Your task to perform on an android device: turn off translation in the chrome app Image 0: 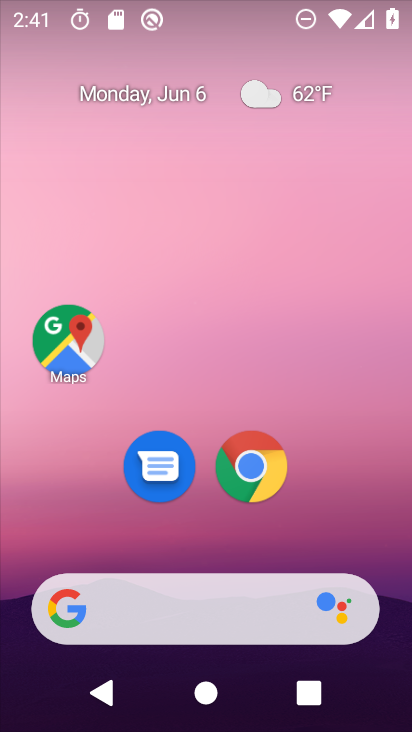
Step 0: drag from (241, 559) to (236, 3)
Your task to perform on an android device: turn off translation in the chrome app Image 1: 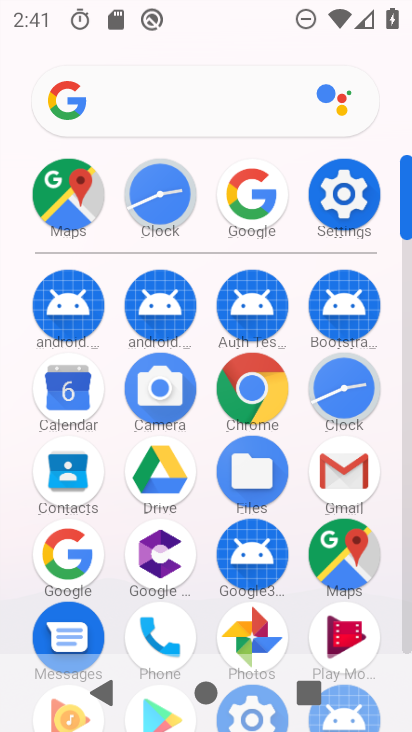
Step 1: click (247, 397)
Your task to perform on an android device: turn off translation in the chrome app Image 2: 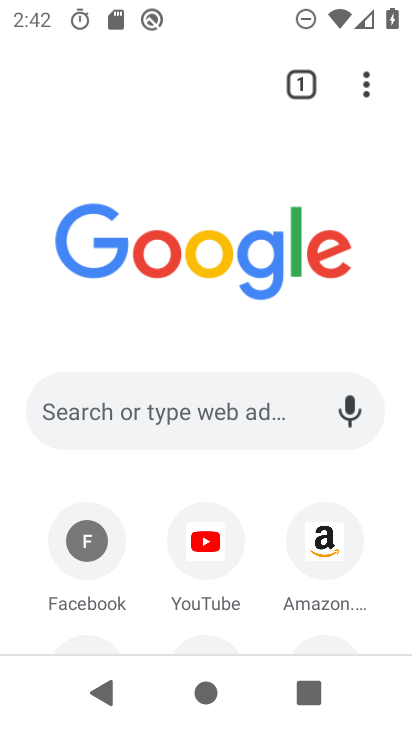
Step 2: click (368, 88)
Your task to perform on an android device: turn off translation in the chrome app Image 3: 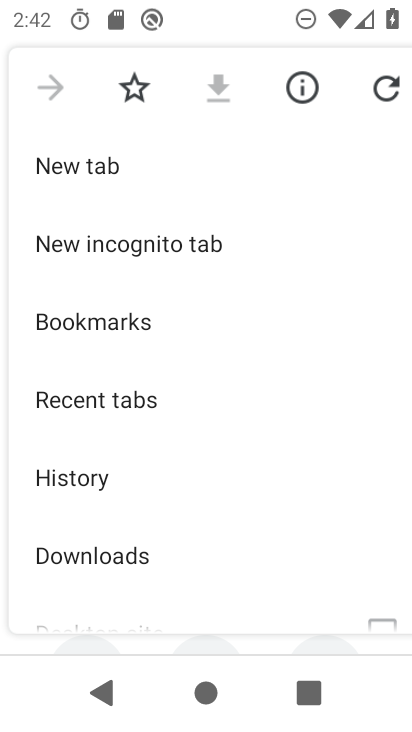
Step 3: drag from (170, 515) to (215, 167)
Your task to perform on an android device: turn off translation in the chrome app Image 4: 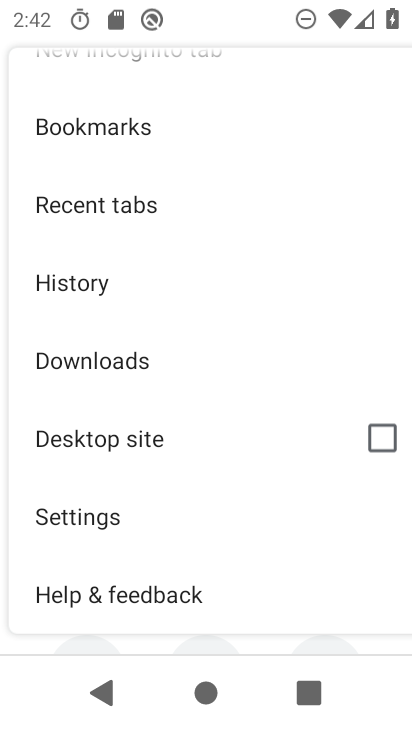
Step 4: click (95, 523)
Your task to perform on an android device: turn off translation in the chrome app Image 5: 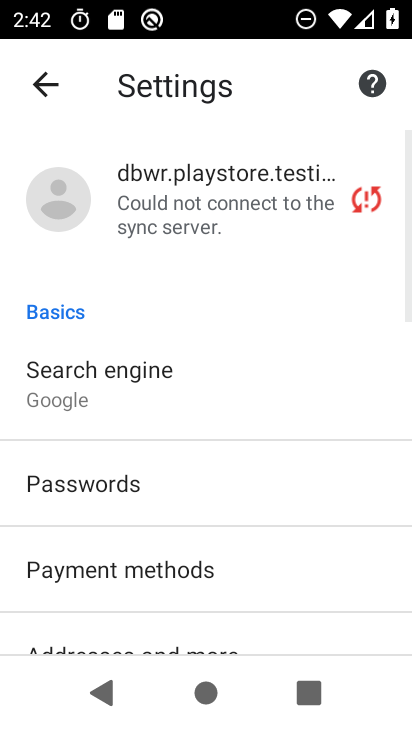
Step 5: drag from (145, 583) to (183, 316)
Your task to perform on an android device: turn off translation in the chrome app Image 6: 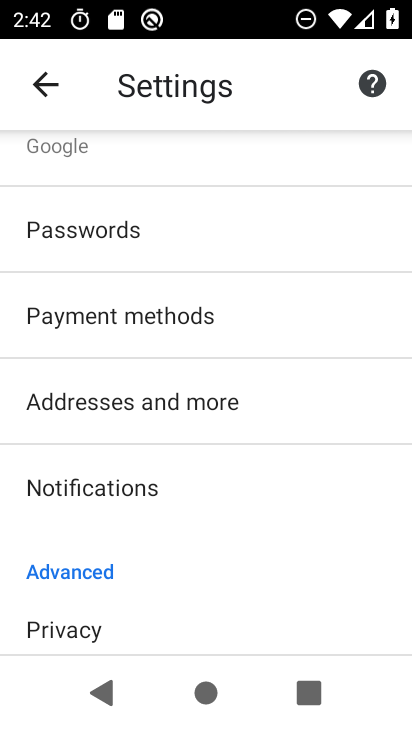
Step 6: drag from (129, 577) to (156, 353)
Your task to perform on an android device: turn off translation in the chrome app Image 7: 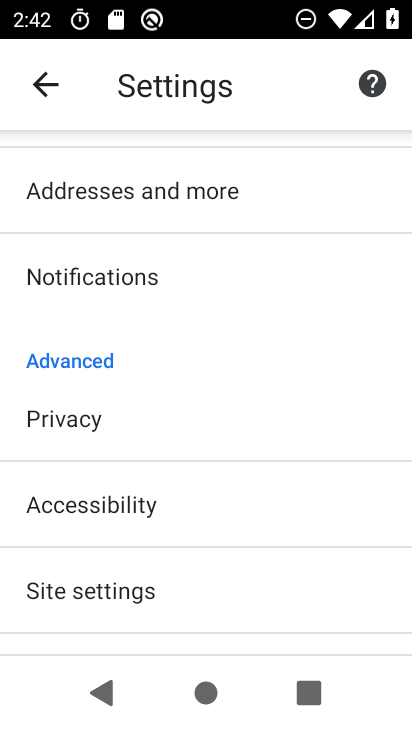
Step 7: drag from (173, 624) to (208, 304)
Your task to perform on an android device: turn off translation in the chrome app Image 8: 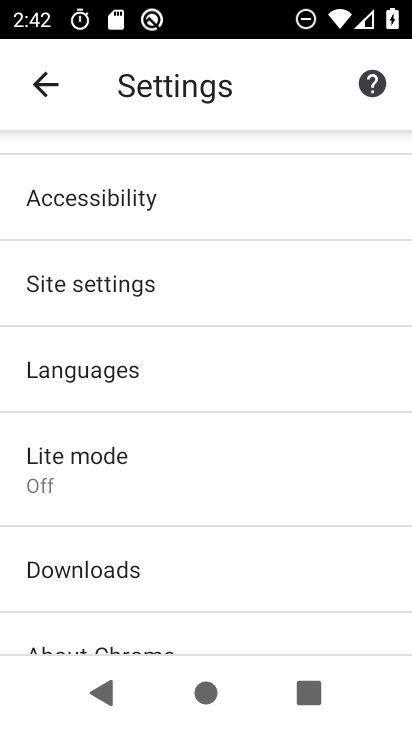
Step 8: click (102, 380)
Your task to perform on an android device: turn off translation in the chrome app Image 9: 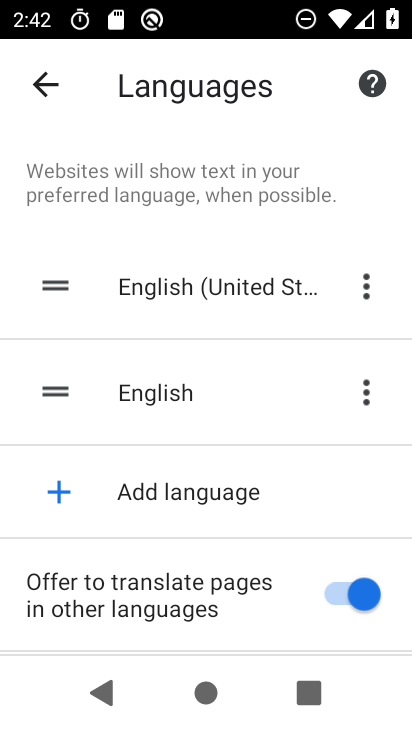
Step 9: click (329, 614)
Your task to perform on an android device: turn off translation in the chrome app Image 10: 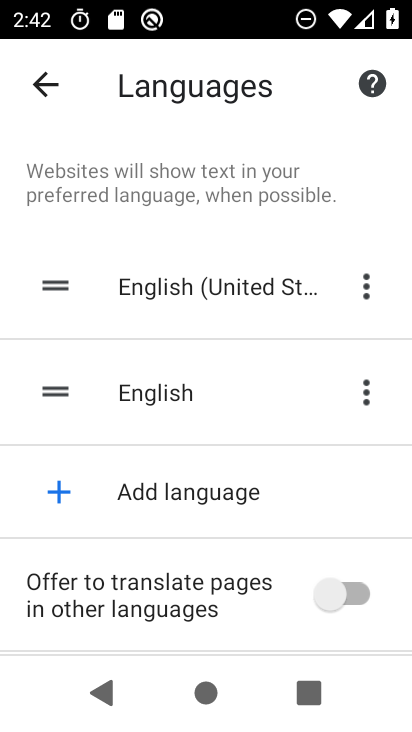
Step 10: task complete